Your task to perform on an android device: When is my next appointment? Image 0: 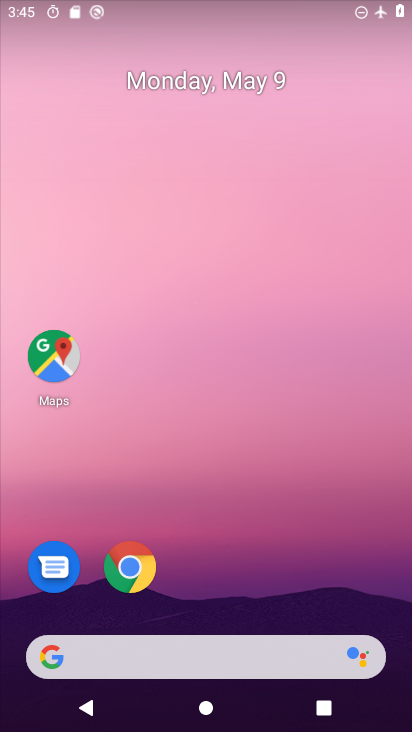
Step 0: click (215, 89)
Your task to perform on an android device: When is my next appointment? Image 1: 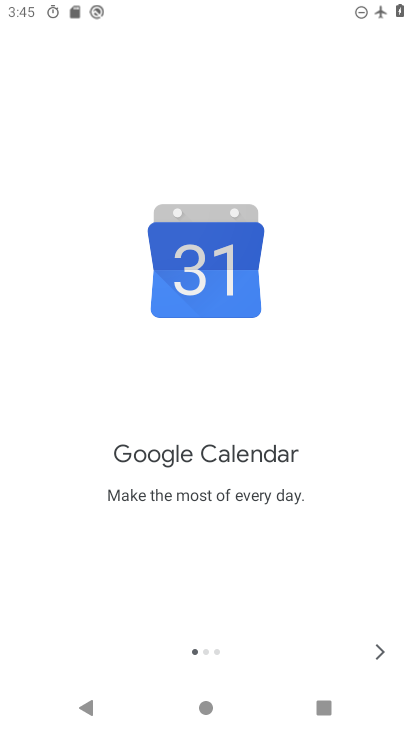
Step 1: click (383, 646)
Your task to perform on an android device: When is my next appointment? Image 2: 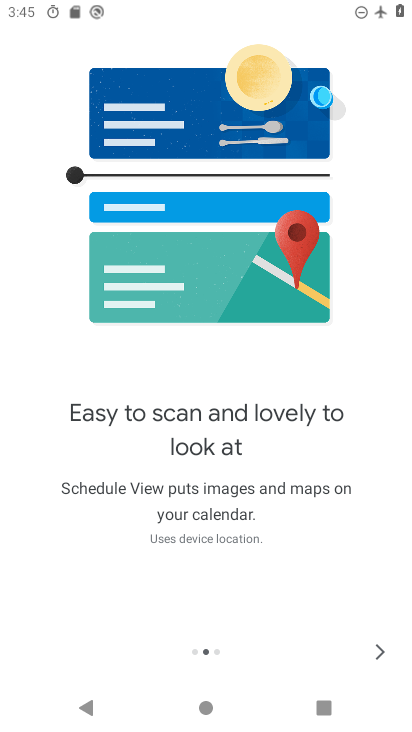
Step 2: click (383, 646)
Your task to perform on an android device: When is my next appointment? Image 3: 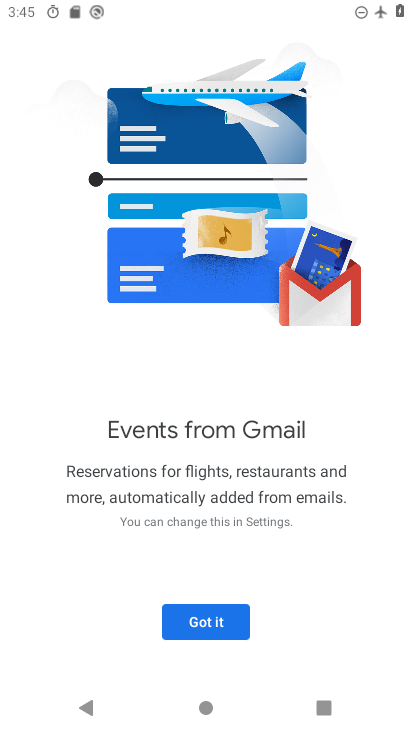
Step 3: click (213, 617)
Your task to perform on an android device: When is my next appointment? Image 4: 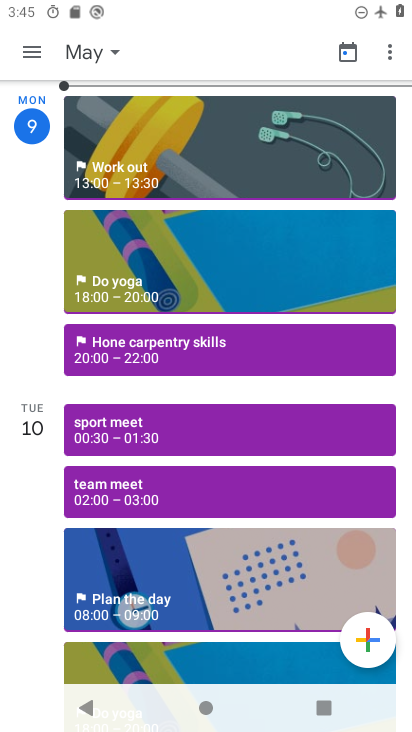
Step 4: task complete